Your task to perform on an android device: Google the capital of Canada Image 0: 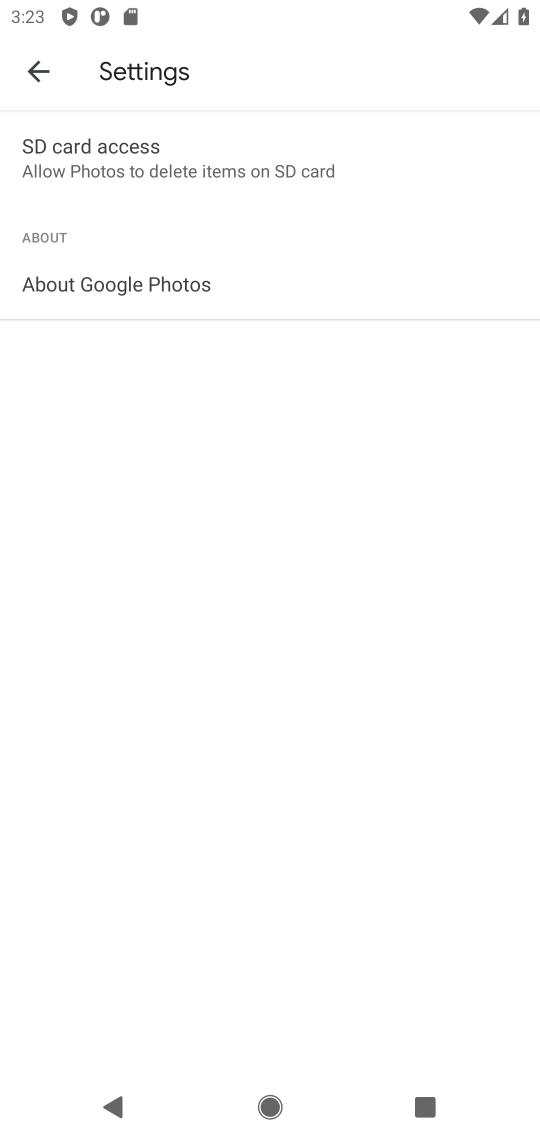
Step 0: press back button
Your task to perform on an android device: Google the capital of Canada Image 1: 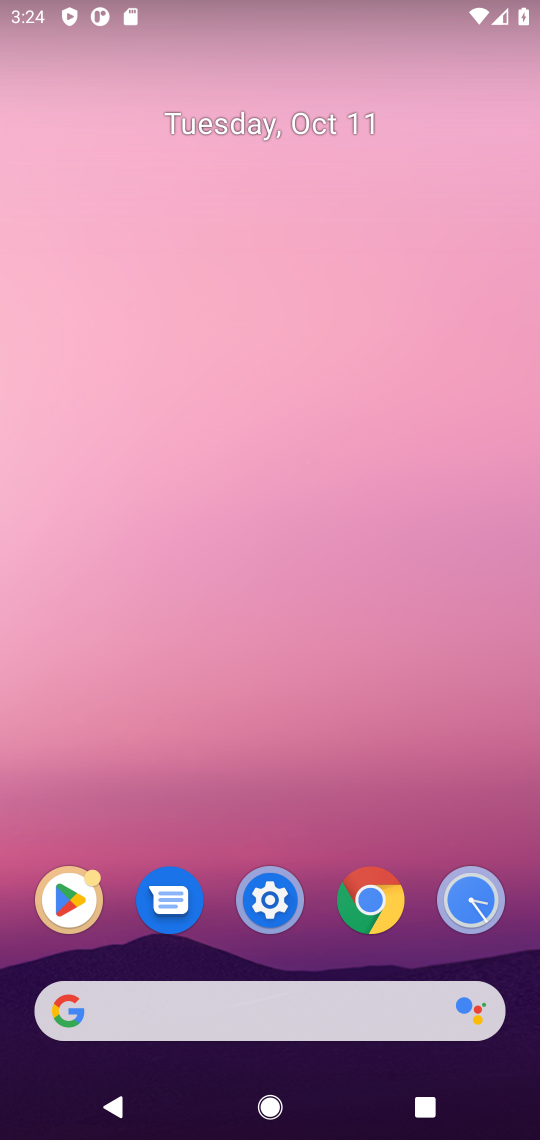
Step 1: click (90, 1007)
Your task to perform on an android device: Google the capital of Canada Image 2: 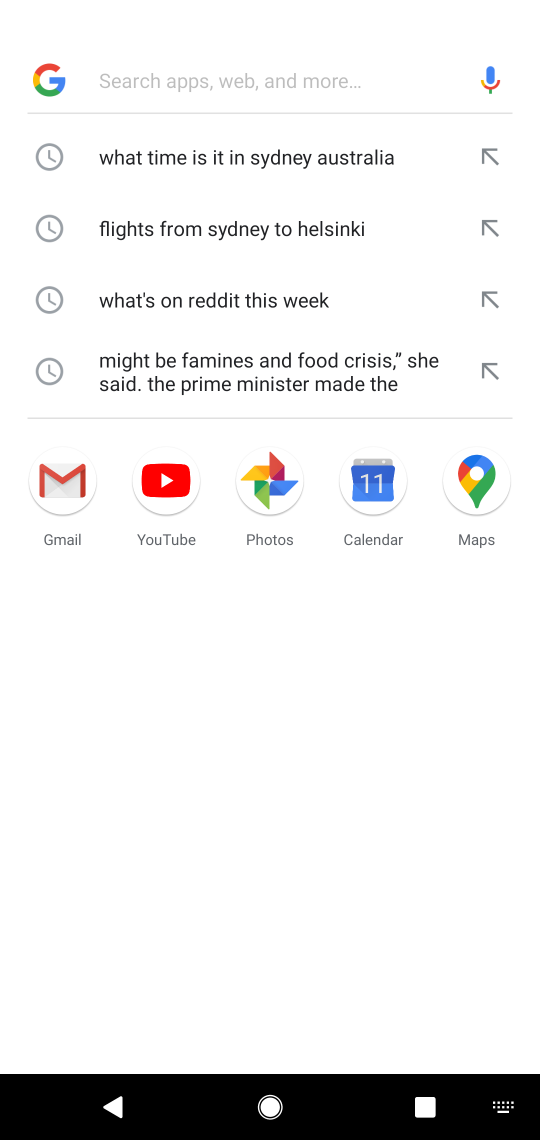
Step 2: type "capital of Canada"
Your task to perform on an android device: Google the capital of Canada Image 3: 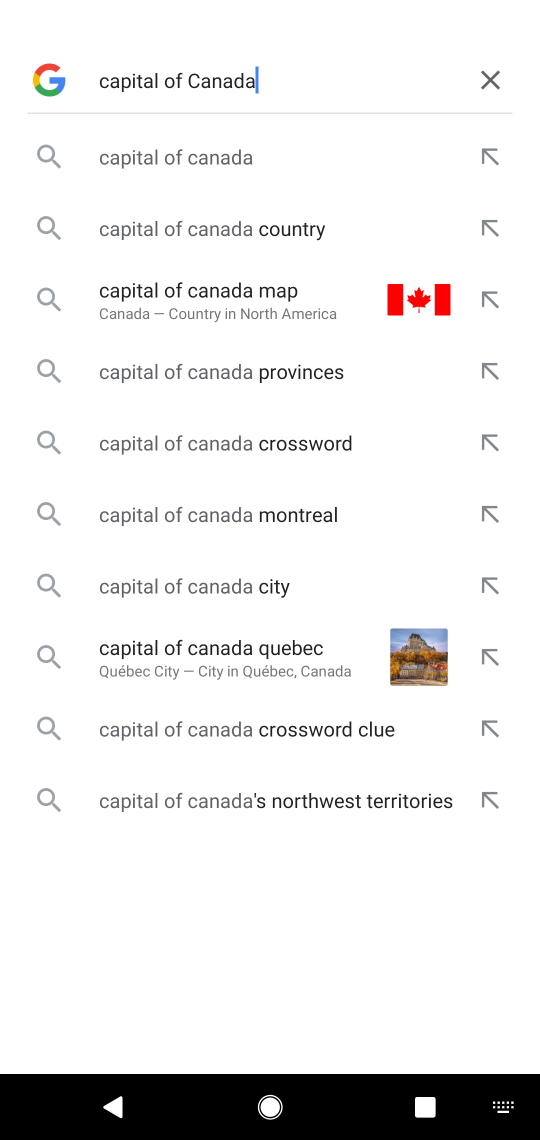
Step 3: click (166, 169)
Your task to perform on an android device: Google the capital of Canada Image 4: 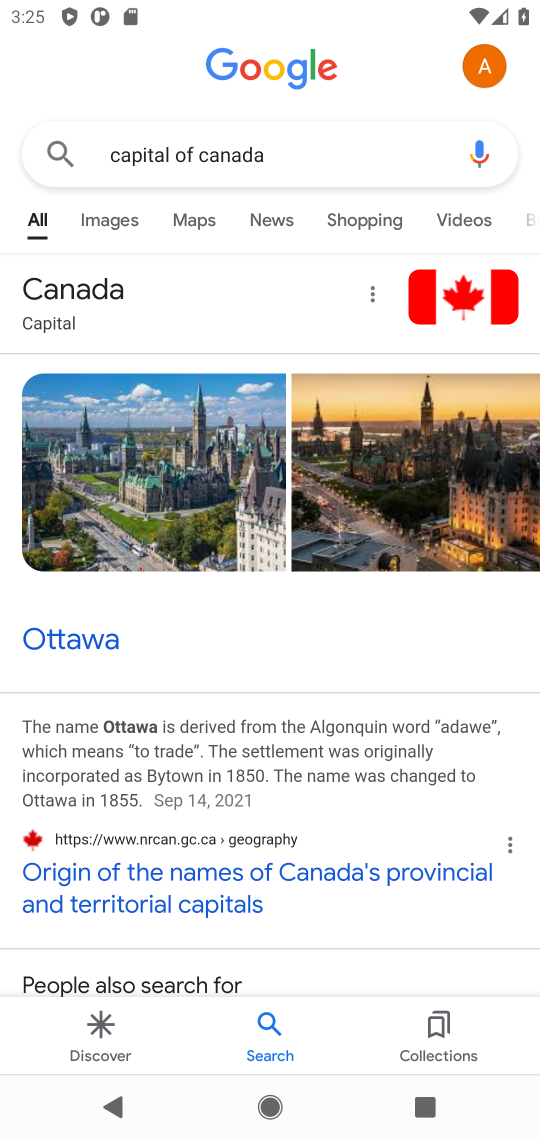
Step 4: drag from (337, 790) to (355, 651)
Your task to perform on an android device: Google the capital of Canada Image 5: 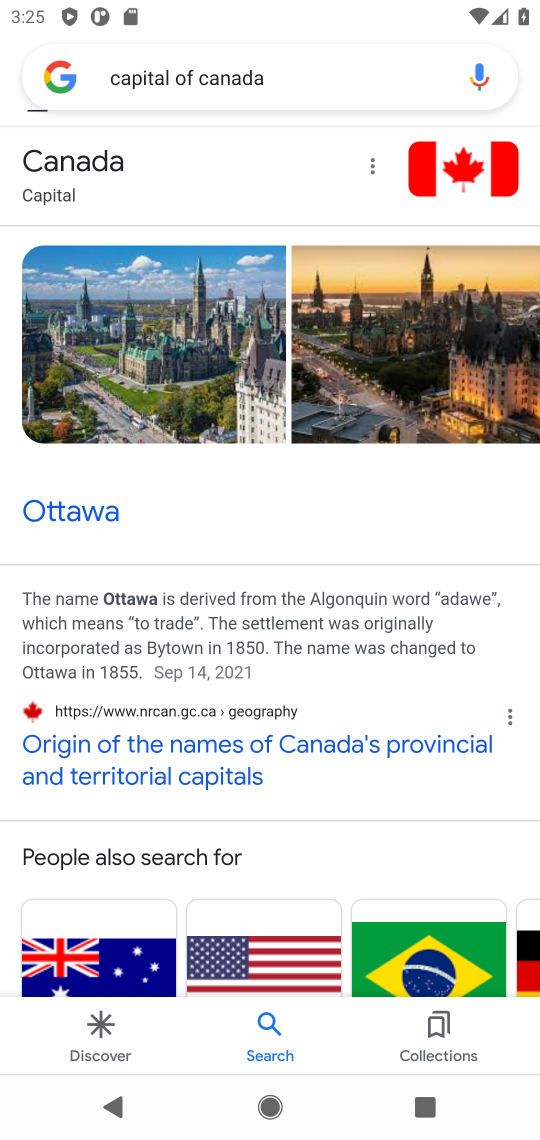
Step 5: drag from (384, 872) to (427, 357)
Your task to perform on an android device: Google the capital of Canada Image 6: 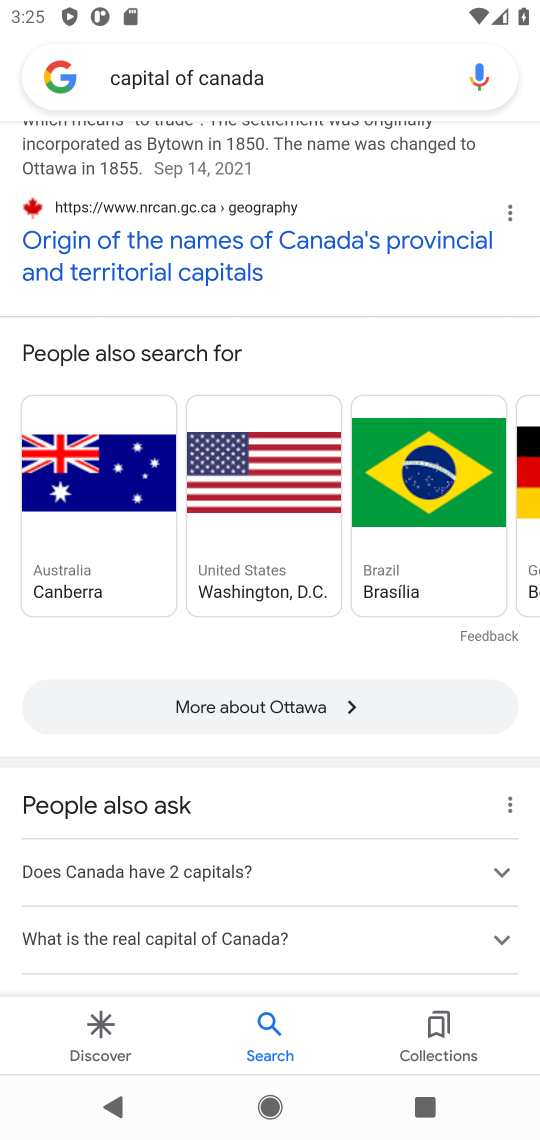
Step 6: click (499, 869)
Your task to perform on an android device: Google the capital of Canada Image 7: 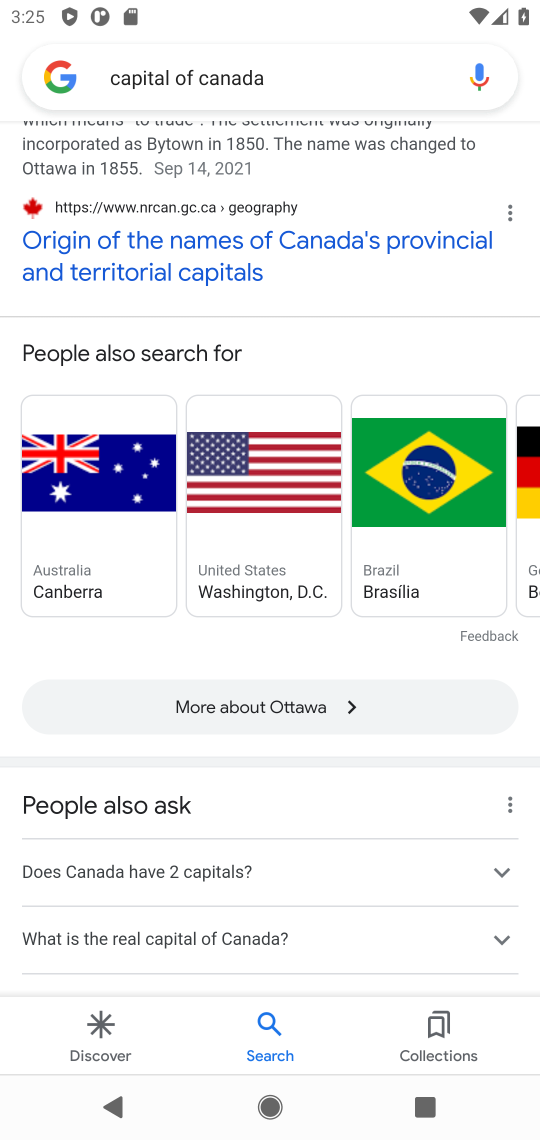
Step 7: click (499, 869)
Your task to perform on an android device: Google the capital of Canada Image 8: 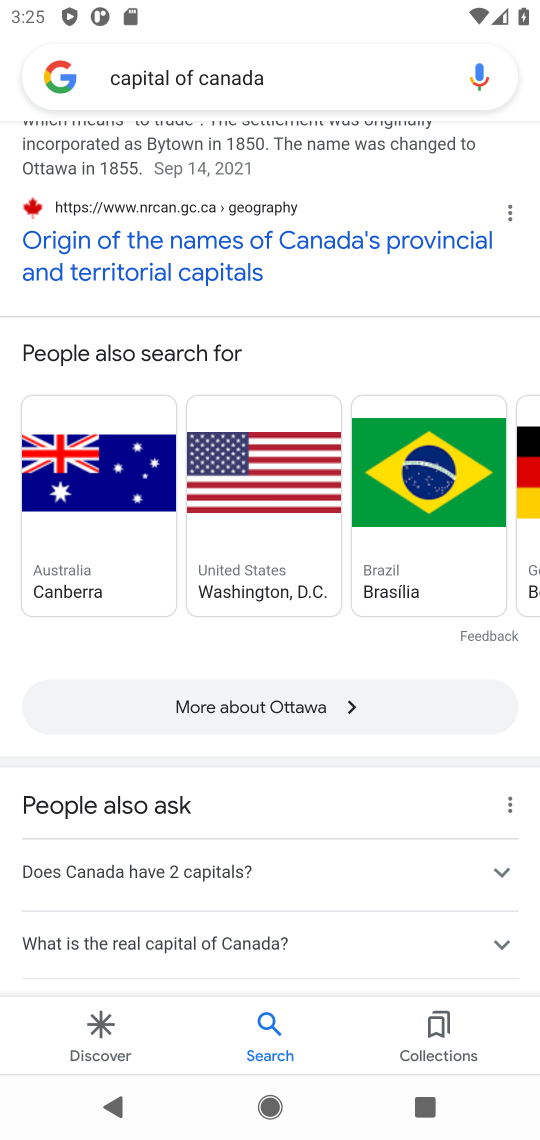
Step 8: click (499, 869)
Your task to perform on an android device: Google the capital of Canada Image 9: 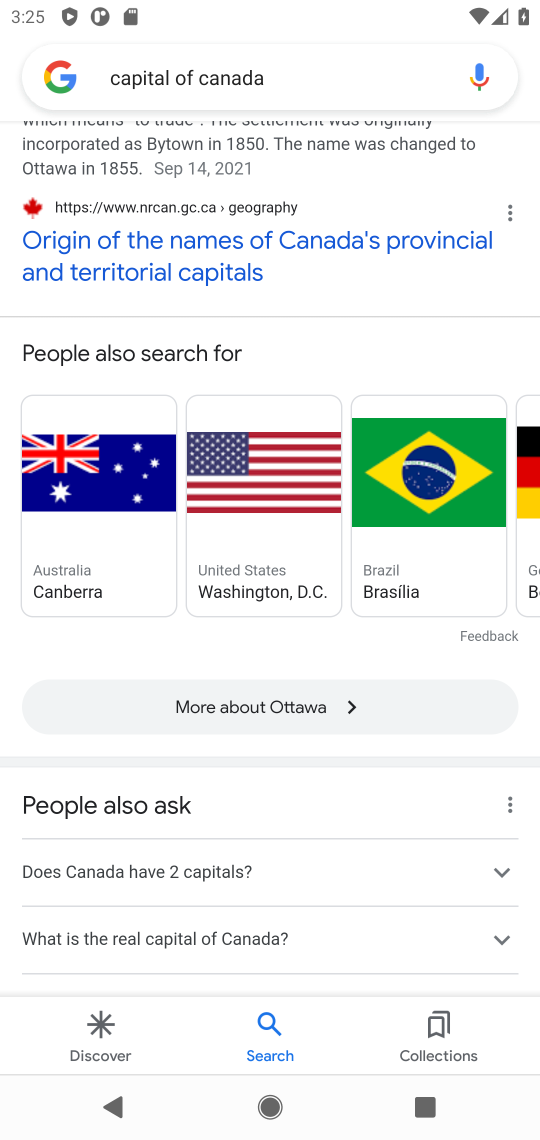
Step 9: click (499, 869)
Your task to perform on an android device: Google the capital of Canada Image 10: 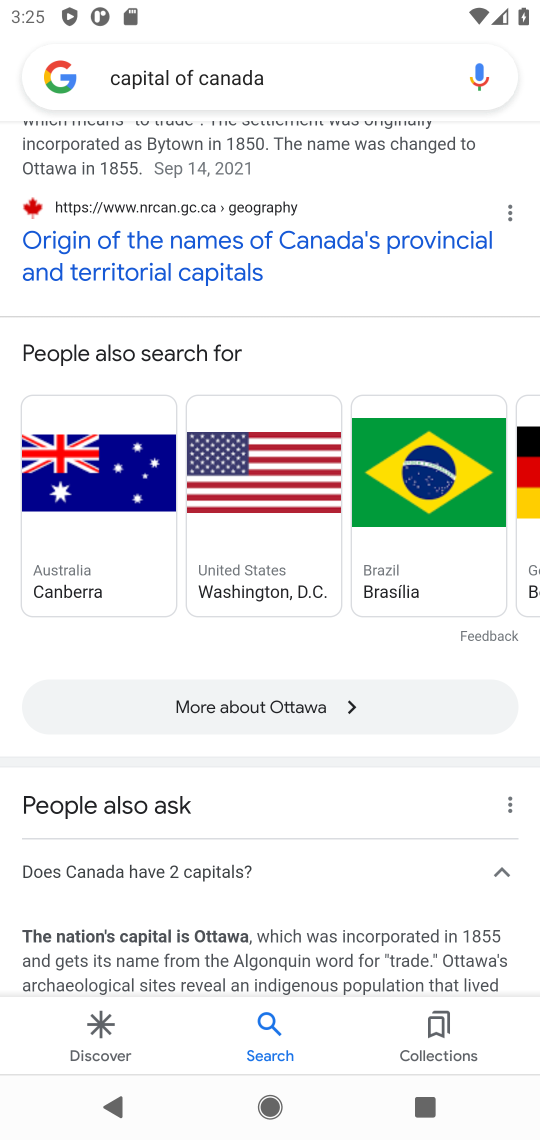
Step 10: click (499, 869)
Your task to perform on an android device: Google the capital of Canada Image 11: 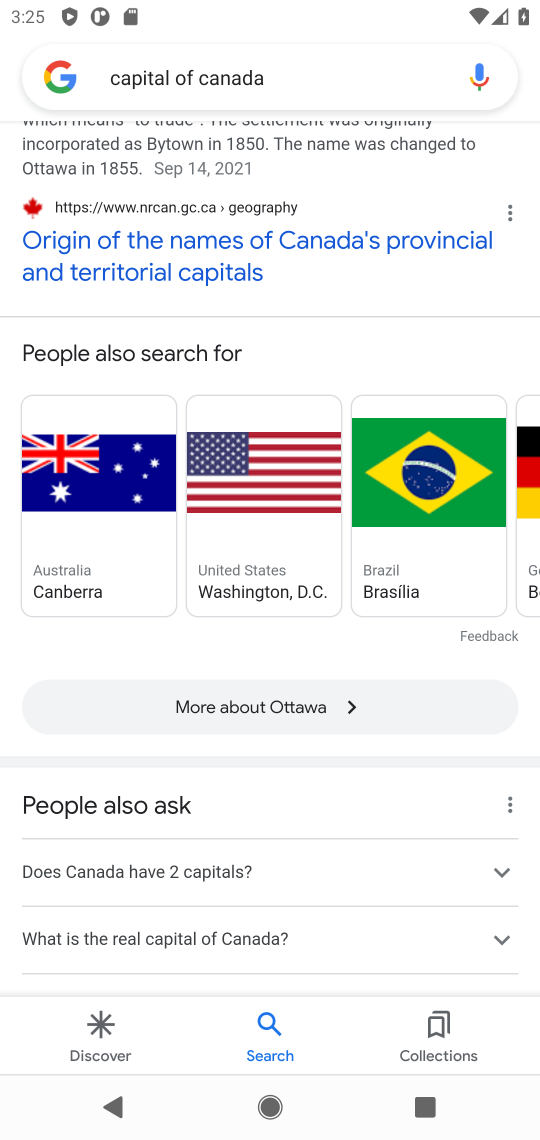
Step 11: click (499, 869)
Your task to perform on an android device: Google the capital of Canada Image 12: 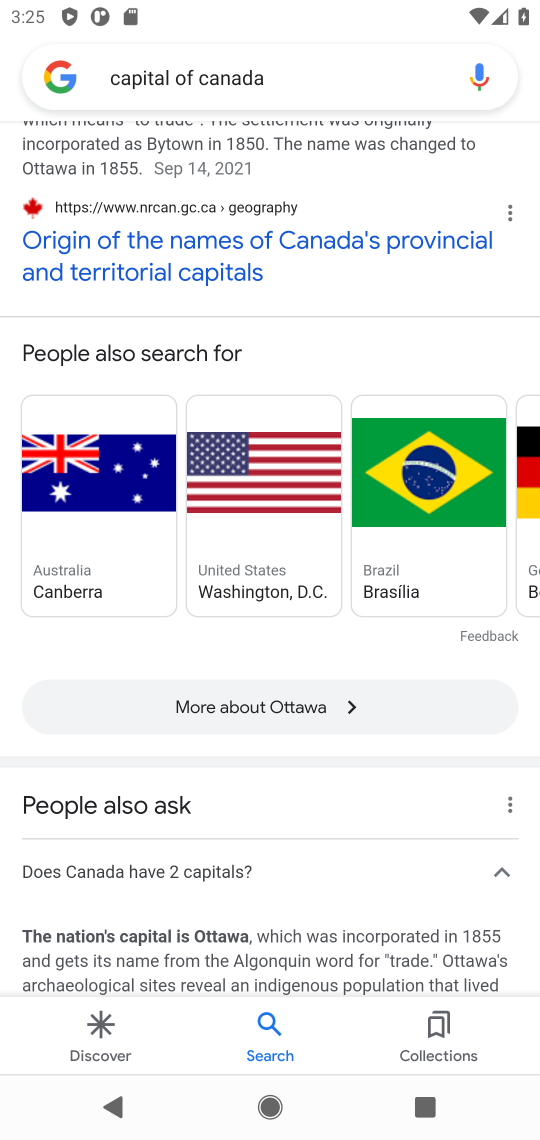
Step 12: click (499, 869)
Your task to perform on an android device: Google the capital of Canada Image 13: 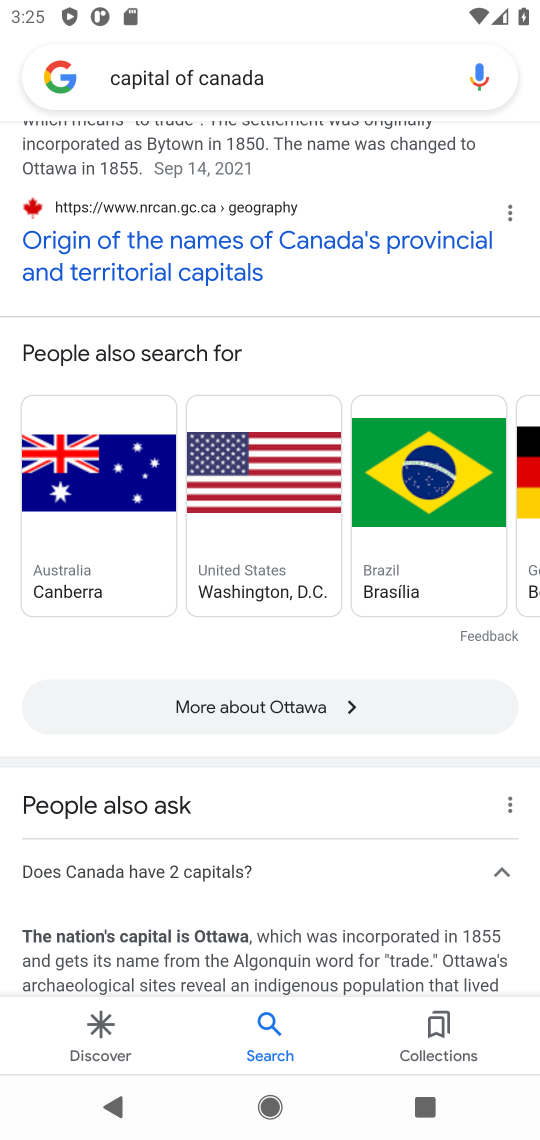
Step 13: click (499, 869)
Your task to perform on an android device: Google the capital of Canada Image 14: 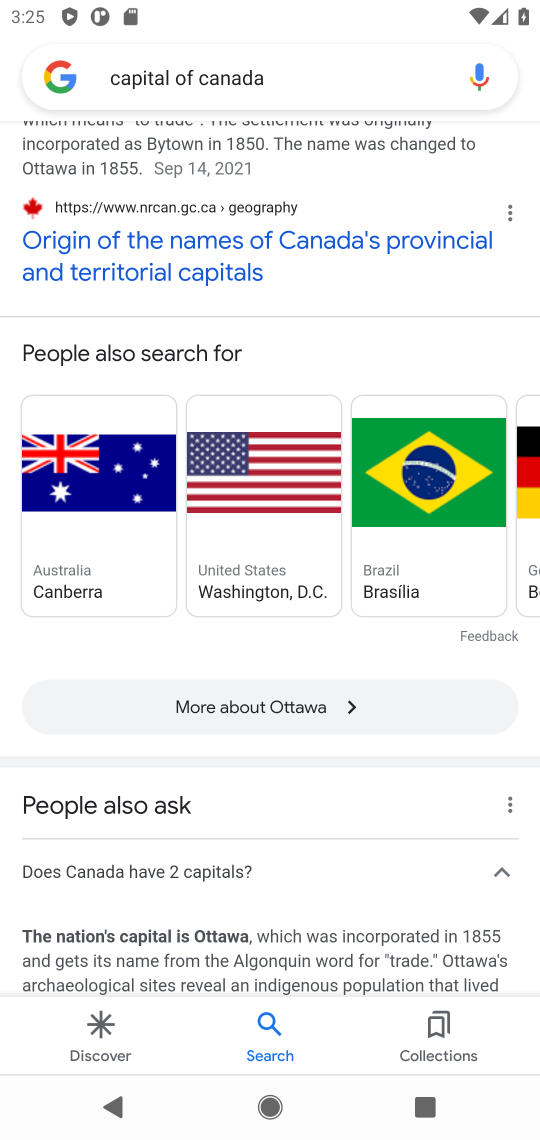
Step 14: task complete